Your task to perform on an android device: Open Google Maps and go to "Timeline" Image 0: 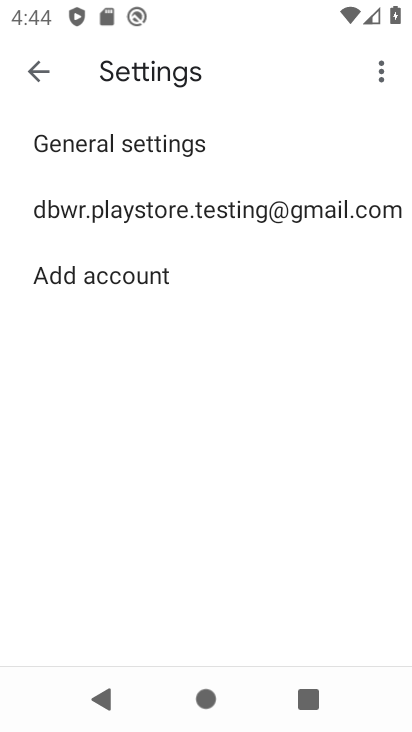
Step 0: press home button
Your task to perform on an android device: Open Google Maps and go to "Timeline" Image 1: 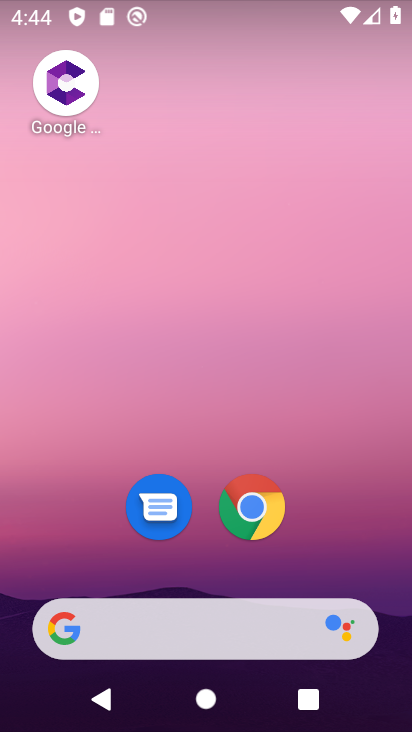
Step 1: drag from (350, 553) to (201, 9)
Your task to perform on an android device: Open Google Maps and go to "Timeline" Image 2: 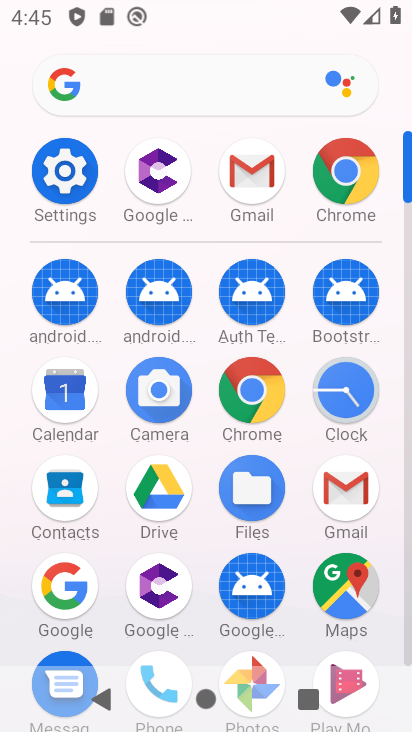
Step 2: click (362, 591)
Your task to perform on an android device: Open Google Maps and go to "Timeline" Image 3: 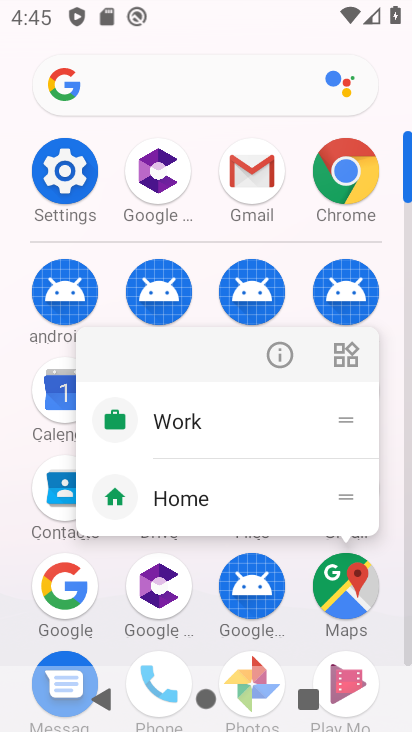
Step 3: click (369, 576)
Your task to perform on an android device: Open Google Maps and go to "Timeline" Image 4: 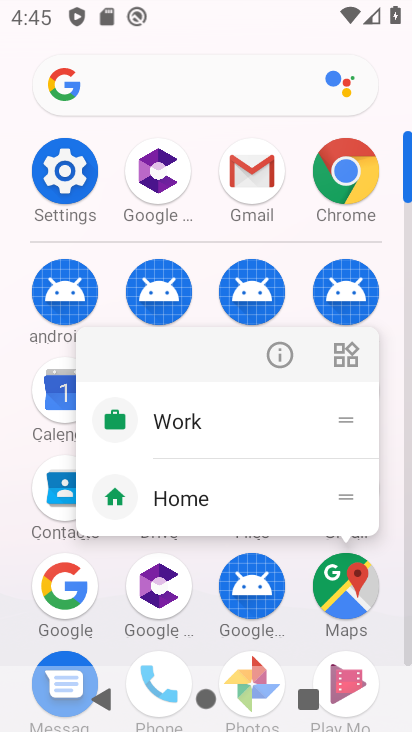
Step 4: click (351, 617)
Your task to perform on an android device: Open Google Maps and go to "Timeline" Image 5: 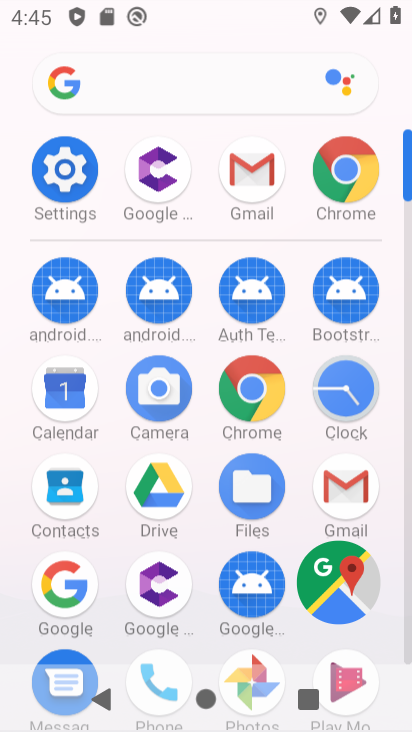
Step 5: click (346, 590)
Your task to perform on an android device: Open Google Maps and go to "Timeline" Image 6: 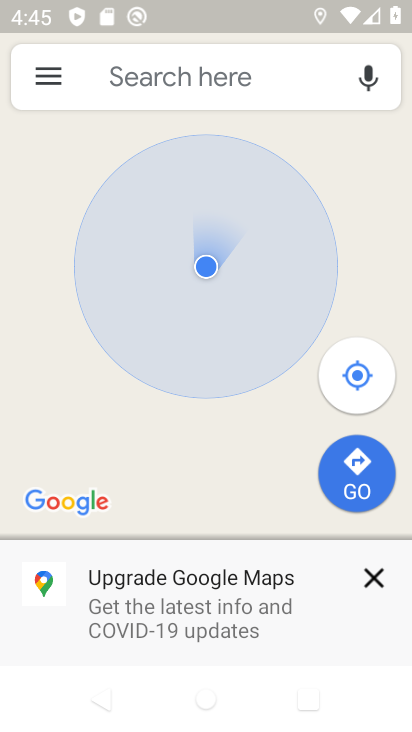
Step 6: click (56, 60)
Your task to perform on an android device: Open Google Maps and go to "Timeline" Image 7: 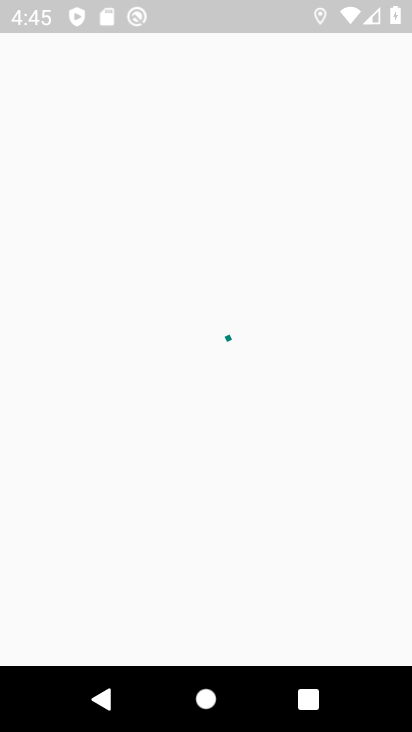
Step 7: press back button
Your task to perform on an android device: Open Google Maps and go to "Timeline" Image 8: 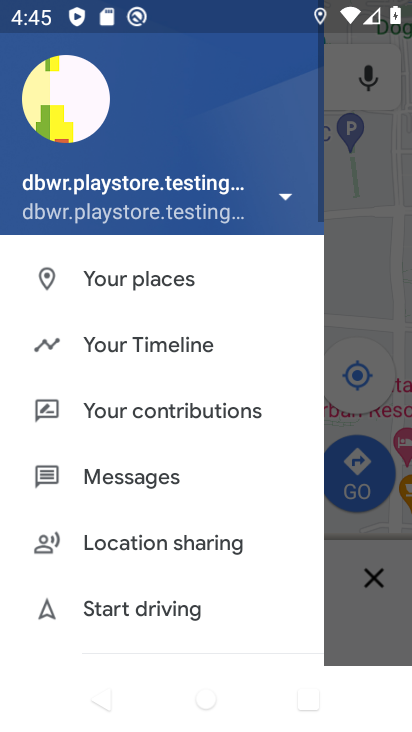
Step 8: click (166, 335)
Your task to perform on an android device: Open Google Maps and go to "Timeline" Image 9: 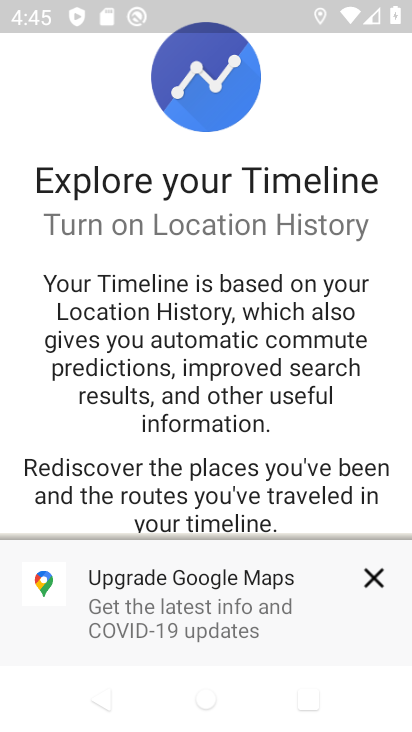
Step 9: task complete